Your task to perform on an android device: Open the web browser Image 0: 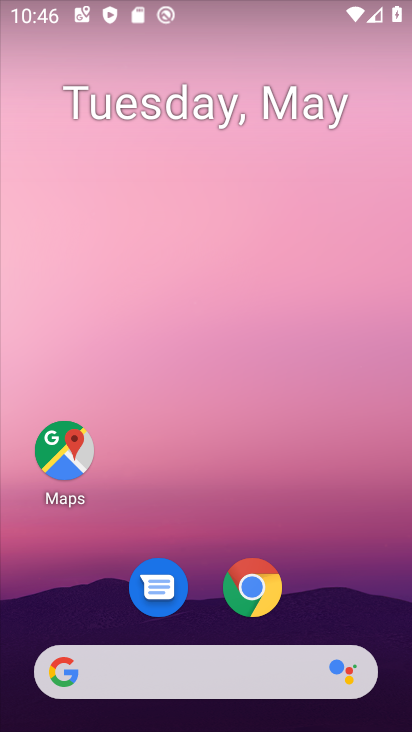
Step 0: drag from (332, 602) to (214, 22)
Your task to perform on an android device: Open the web browser Image 1: 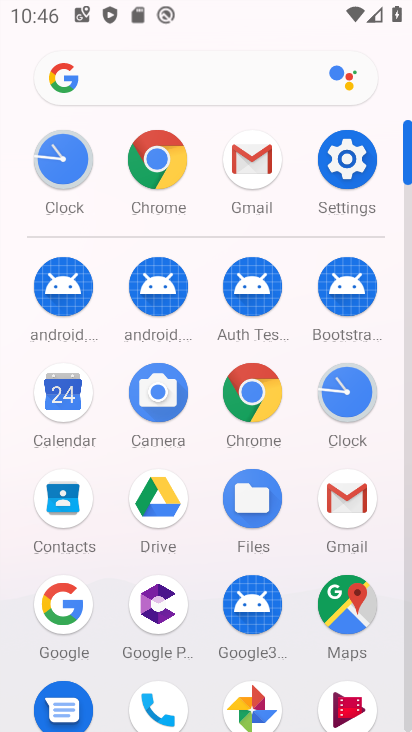
Step 1: drag from (11, 627) to (20, 317)
Your task to perform on an android device: Open the web browser Image 2: 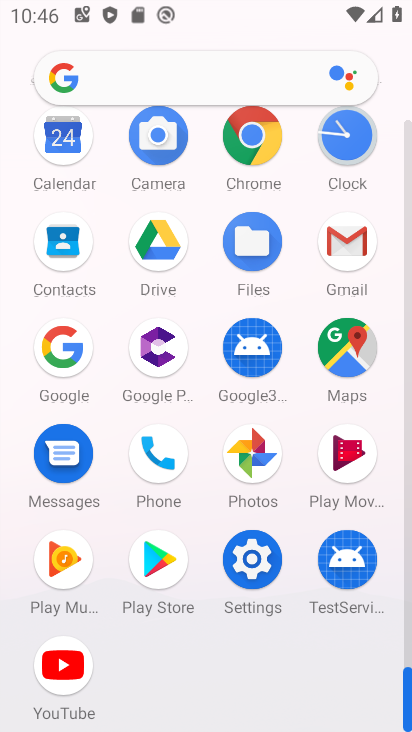
Step 2: click (255, 134)
Your task to perform on an android device: Open the web browser Image 3: 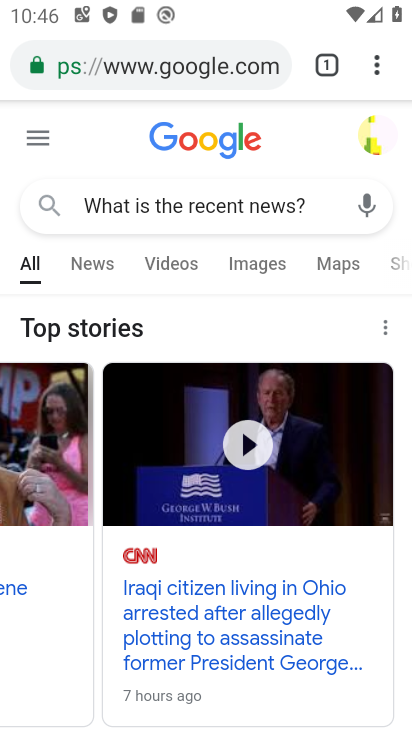
Step 3: task complete